Your task to perform on an android device: turn pop-ups off in chrome Image 0: 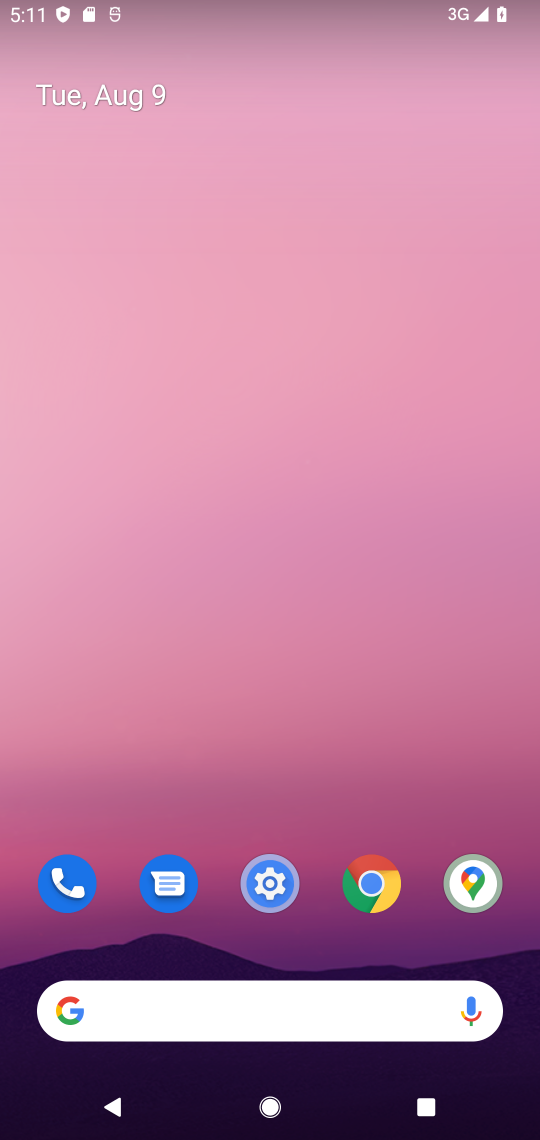
Step 0: click (360, 866)
Your task to perform on an android device: turn pop-ups off in chrome Image 1: 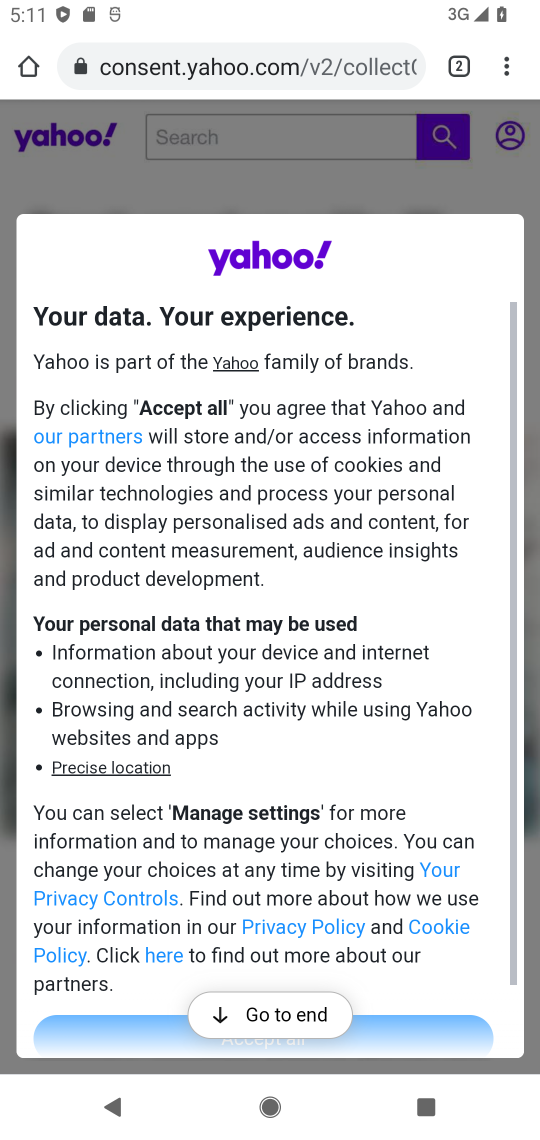
Step 1: click (508, 58)
Your task to perform on an android device: turn pop-ups off in chrome Image 2: 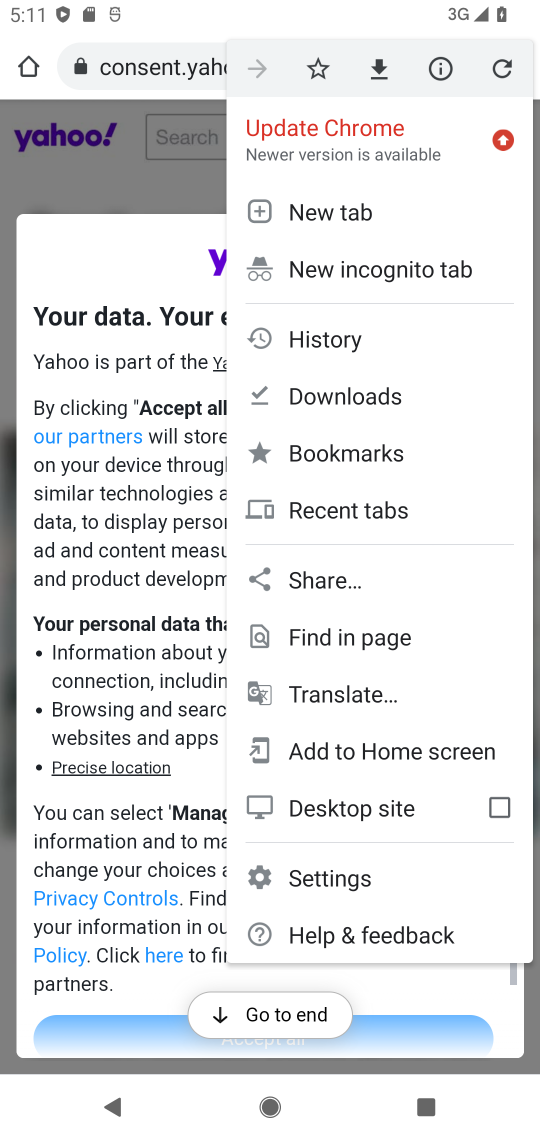
Step 2: click (347, 871)
Your task to perform on an android device: turn pop-ups off in chrome Image 3: 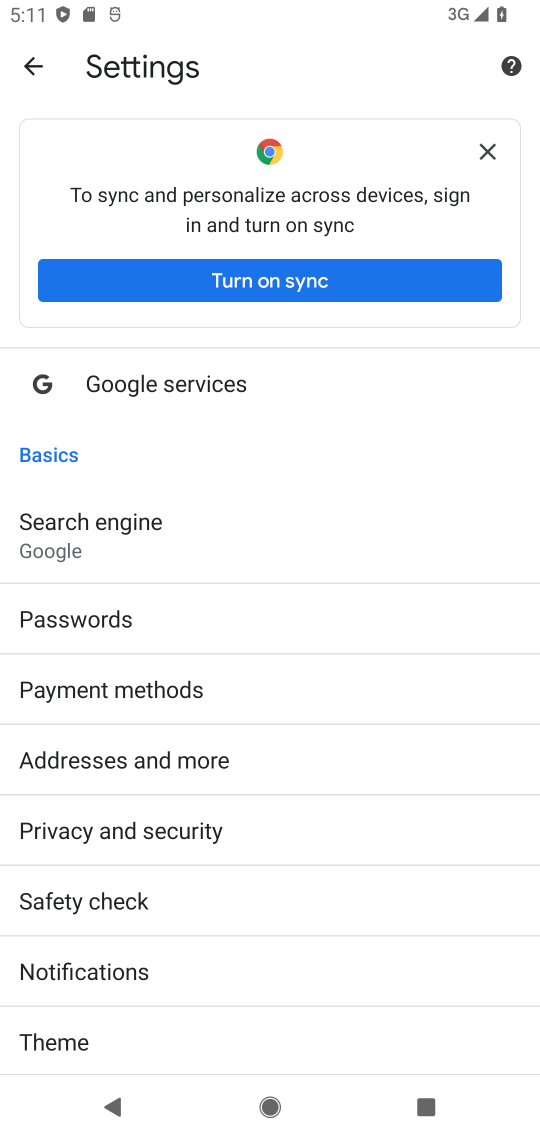
Step 3: drag from (140, 991) to (244, 497)
Your task to perform on an android device: turn pop-ups off in chrome Image 4: 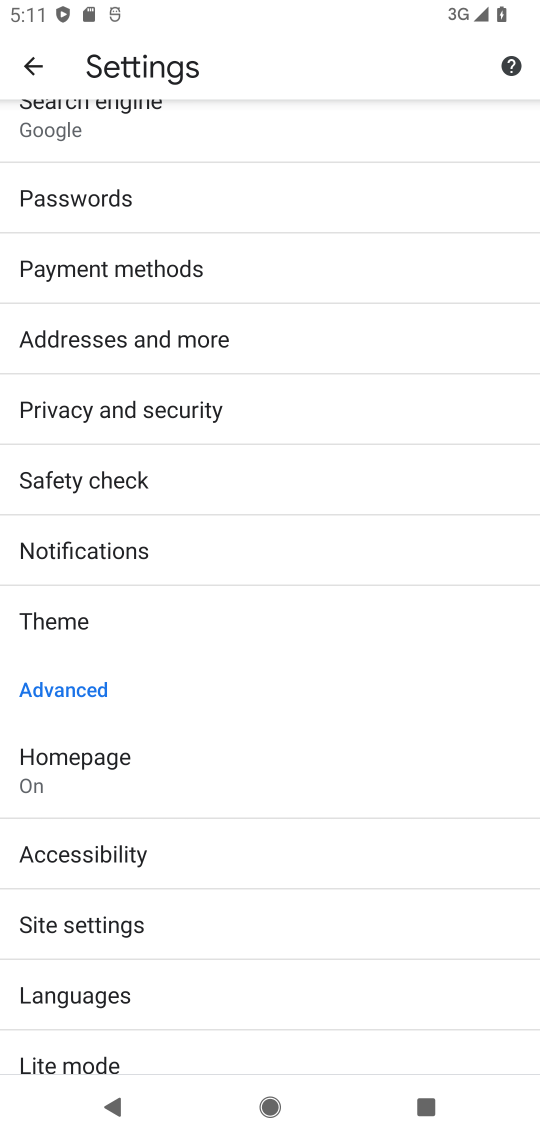
Step 4: click (100, 922)
Your task to perform on an android device: turn pop-ups off in chrome Image 5: 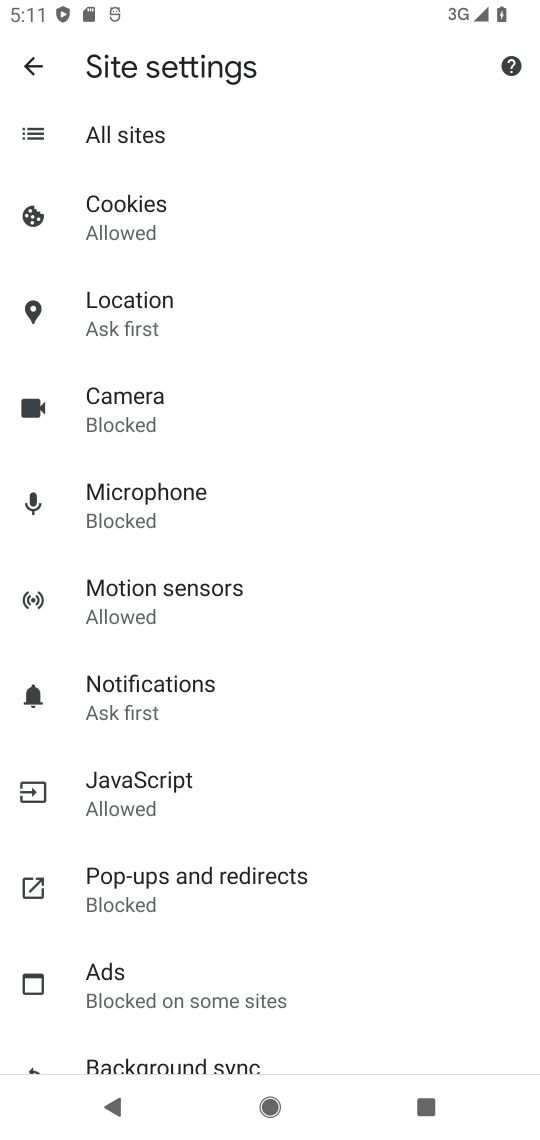
Step 5: click (200, 875)
Your task to perform on an android device: turn pop-ups off in chrome Image 6: 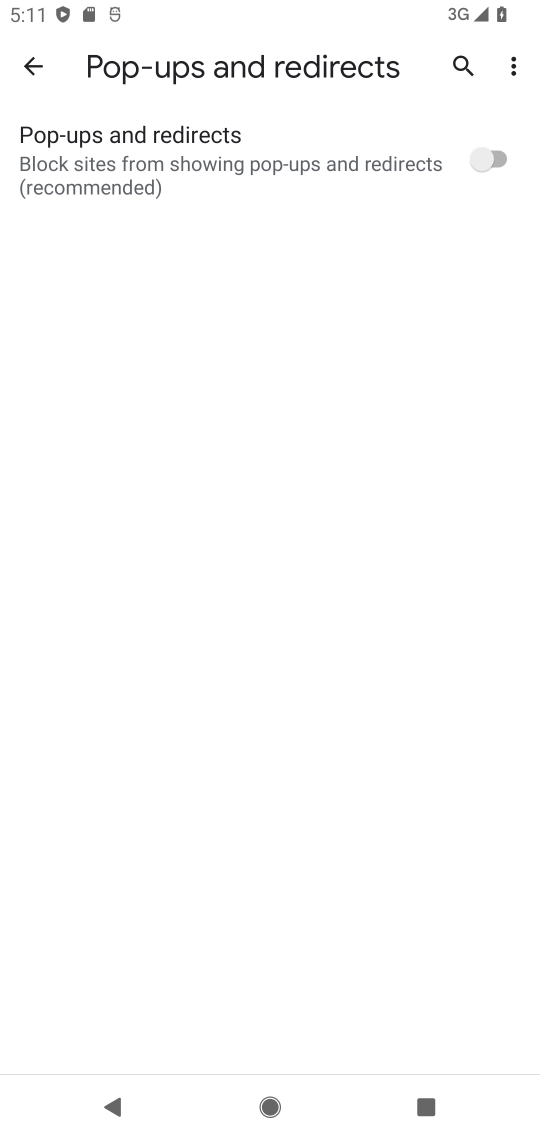
Step 6: click (505, 159)
Your task to perform on an android device: turn pop-ups off in chrome Image 7: 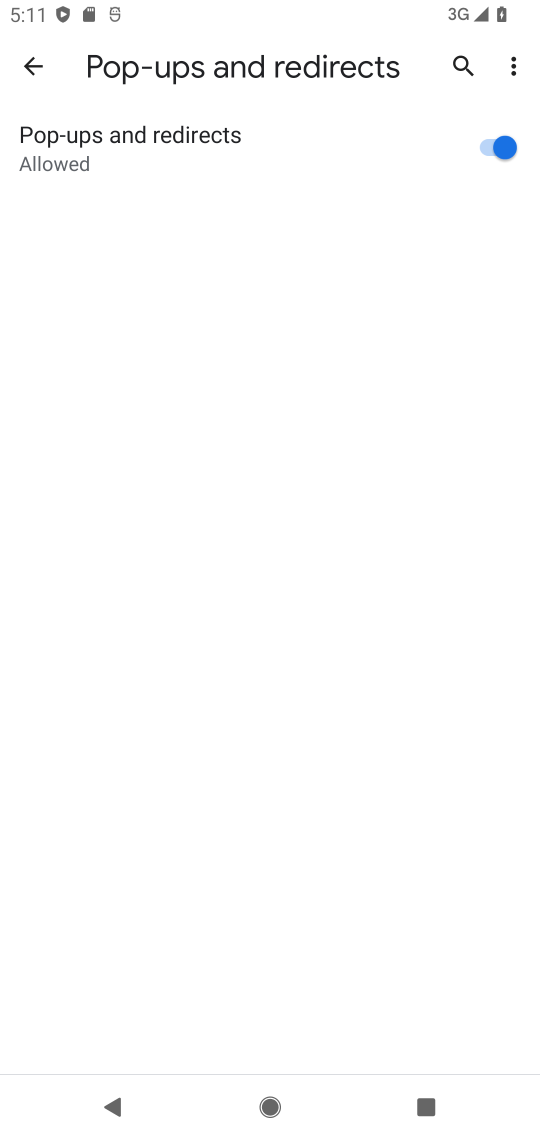
Step 7: click (484, 155)
Your task to perform on an android device: turn pop-ups off in chrome Image 8: 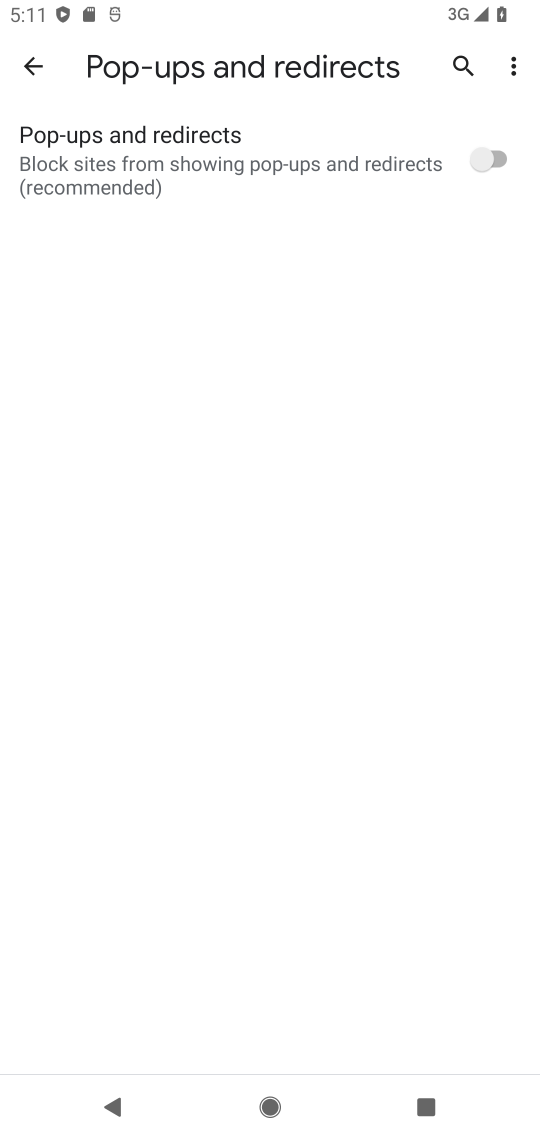
Step 8: task complete